Your task to perform on an android device: Go to CNN.com Image 0: 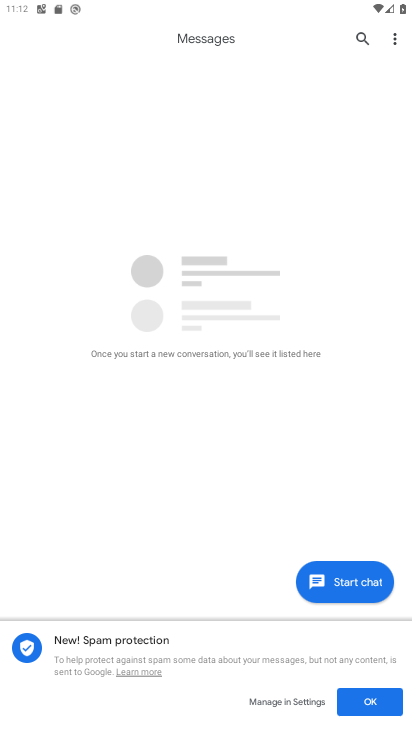
Step 0: press home button
Your task to perform on an android device: Go to CNN.com Image 1: 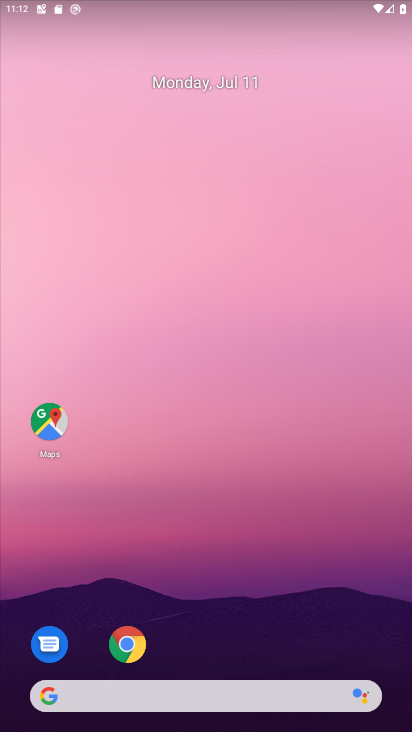
Step 1: click (128, 649)
Your task to perform on an android device: Go to CNN.com Image 2: 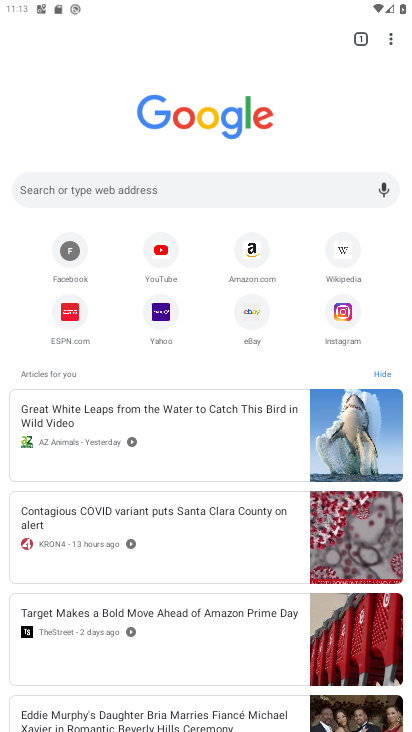
Step 2: click (178, 199)
Your task to perform on an android device: Go to CNN.com Image 3: 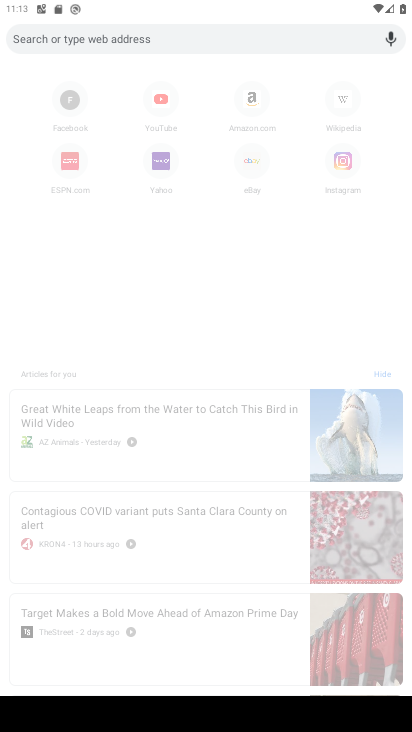
Step 3: type "CNN.com"
Your task to perform on an android device: Go to CNN.com Image 4: 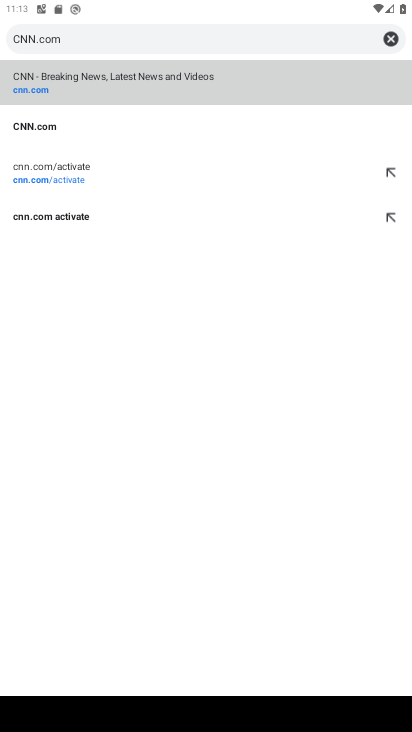
Step 4: click (219, 73)
Your task to perform on an android device: Go to CNN.com Image 5: 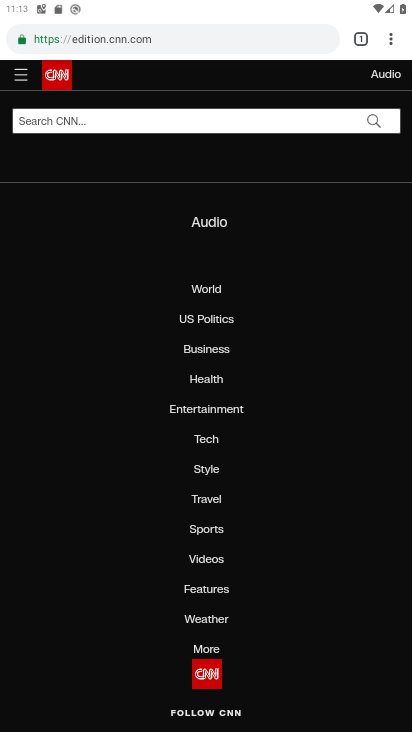
Step 5: task complete